Your task to perform on an android device: Go to ESPN.com Image 0: 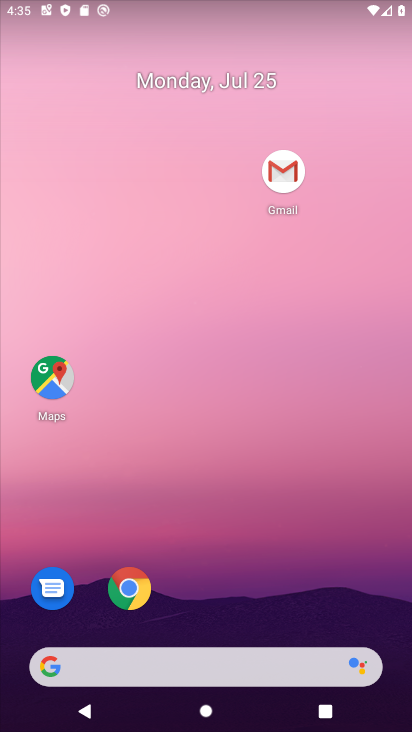
Step 0: drag from (318, 571) to (279, 40)
Your task to perform on an android device: Go to ESPN.com Image 1: 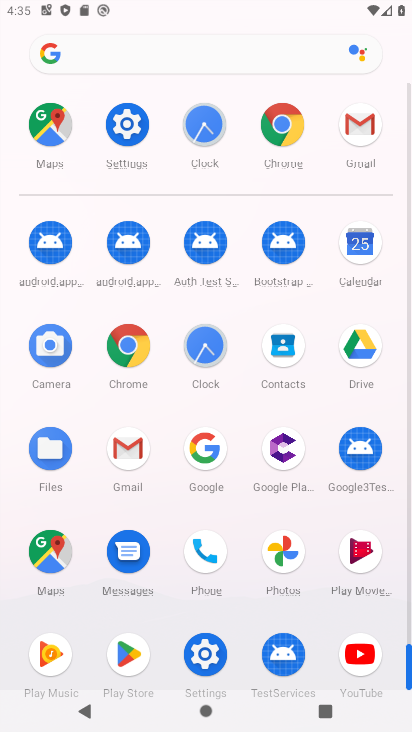
Step 1: click (280, 122)
Your task to perform on an android device: Go to ESPN.com Image 2: 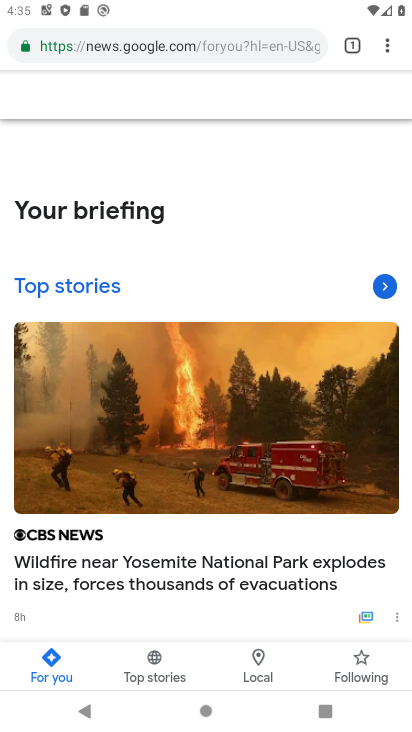
Step 2: click (219, 42)
Your task to perform on an android device: Go to ESPN.com Image 3: 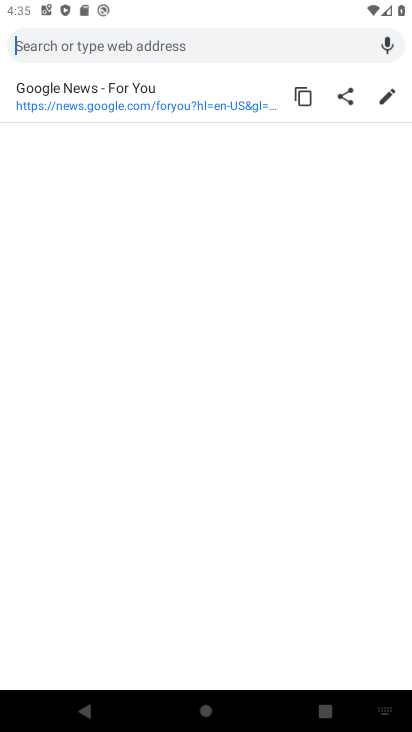
Step 3: type "espn.com"
Your task to perform on an android device: Go to ESPN.com Image 4: 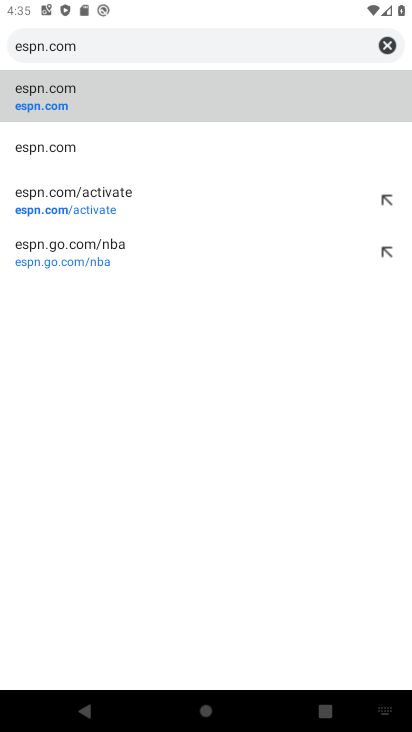
Step 4: click (92, 101)
Your task to perform on an android device: Go to ESPN.com Image 5: 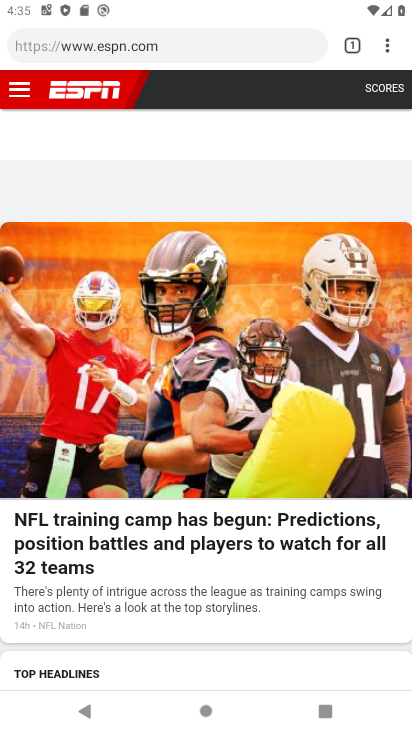
Step 5: task complete